Your task to perform on an android device: Open Chrome and go to settings Image 0: 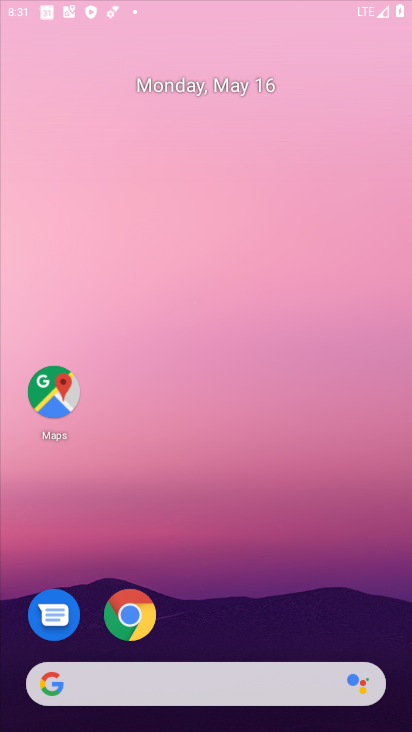
Step 0: drag from (221, 524) to (259, 158)
Your task to perform on an android device: Open Chrome and go to settings Image 1: 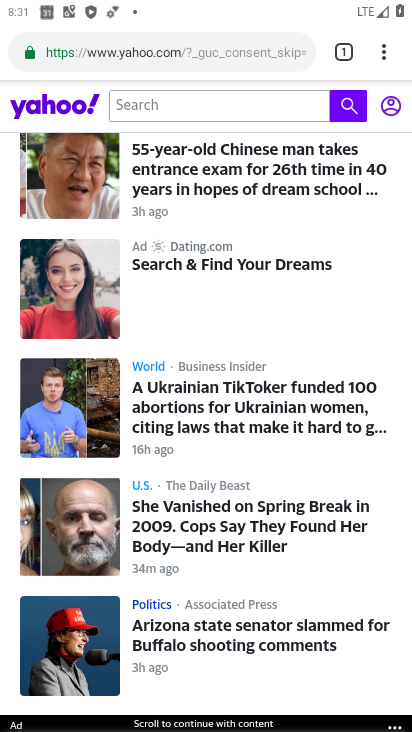
Step 1: click (379, 58)
Your task to perform on an android device: Open Chrome and go to settings Image 2: 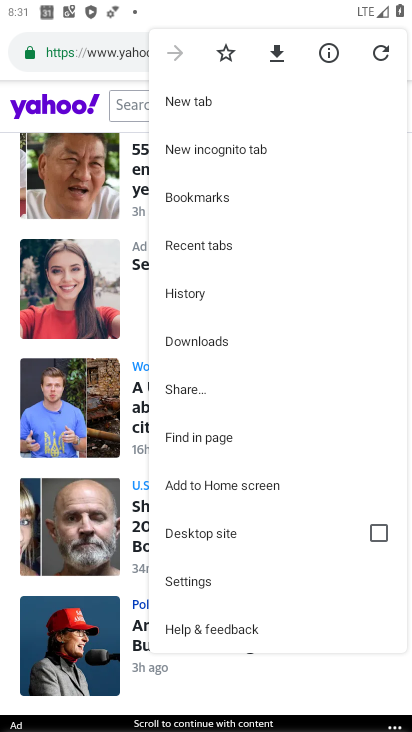
Step 2: click (230, 585)
Your task to perform on an android device: Open Chrome and go to settings Image 3: 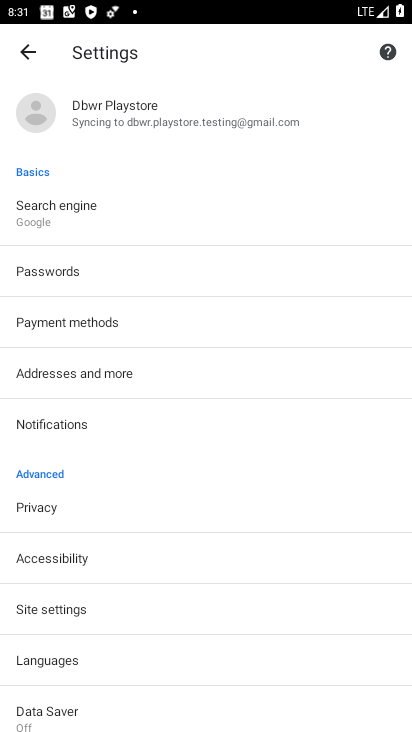
Step 3: task complete